Your task to perform on an android device: turn off airplane mode Image 0: 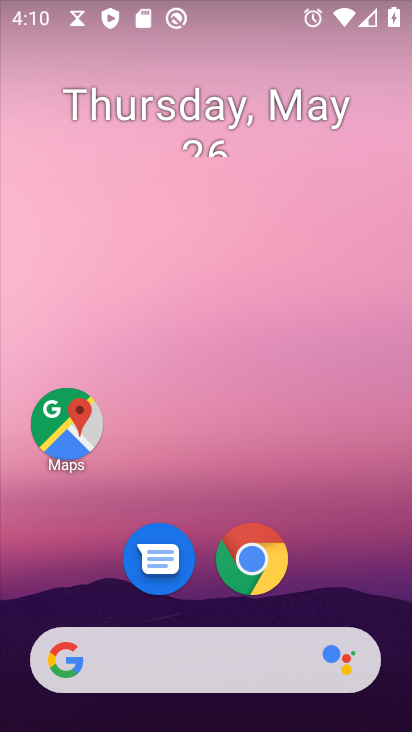
Step 0: drag from (274, 62) to (226, 0)
Your task to perform on an android device: turn off airplane mode Image 1: 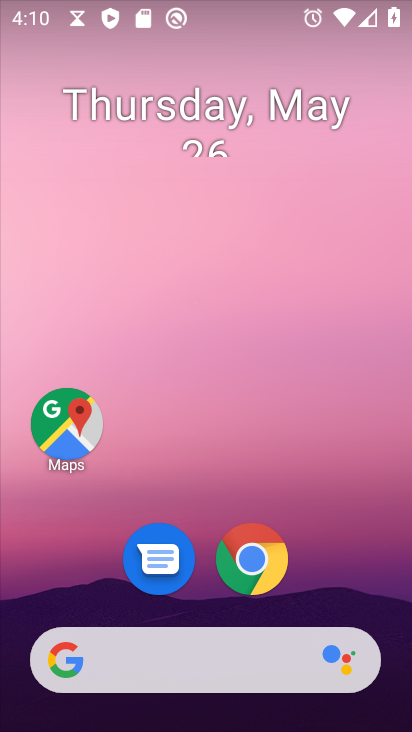
Step 1: drag from (361, 558) to (196, 0)
Your task to perform on an android device: turn off airplane mode Image 2: 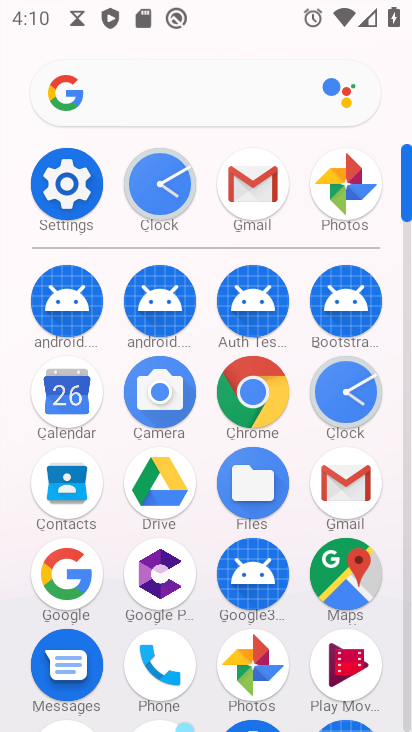
Step 2: click (69, 186)
Your task to perform on an android device: turn off airplane mode Image 3: 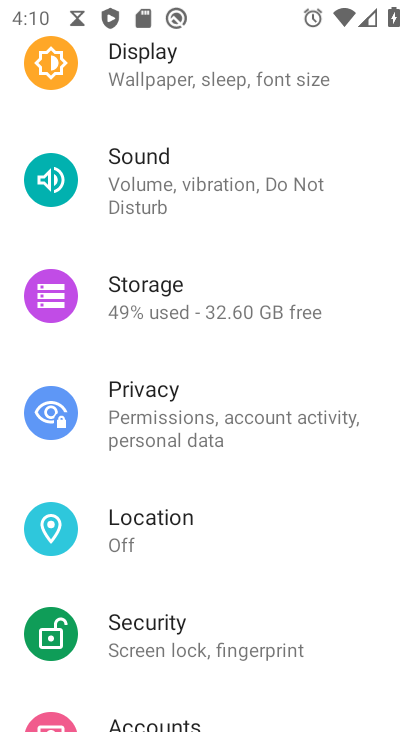
Step 3: drag from (293, 164) to (309, 619)
Your task to perform on an android device: turn off airplane mode Image 4: 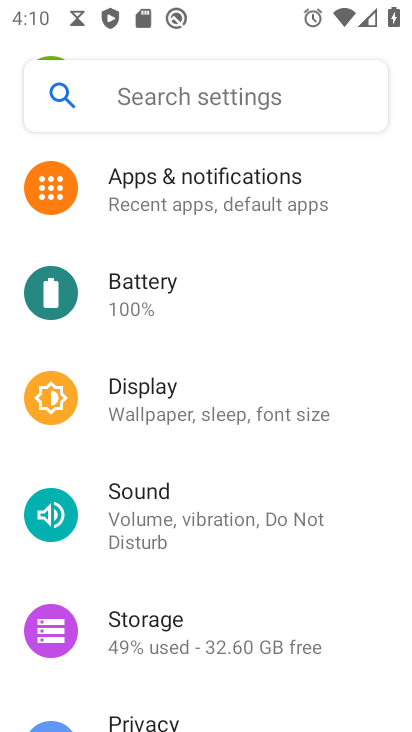
Step 4: drag from (219, 235) to (232, 605)
Your task to perform on an android device: turn off airplane mode Image 5: 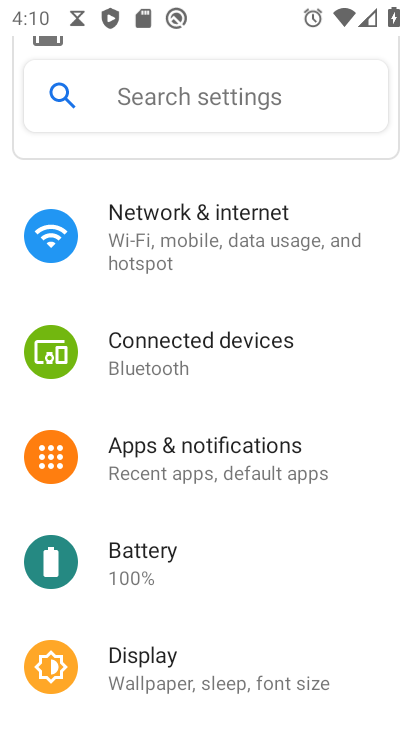
Step 5: click (189, 214)
Your task to perform on an android device: turn off airplane mode Image 6: 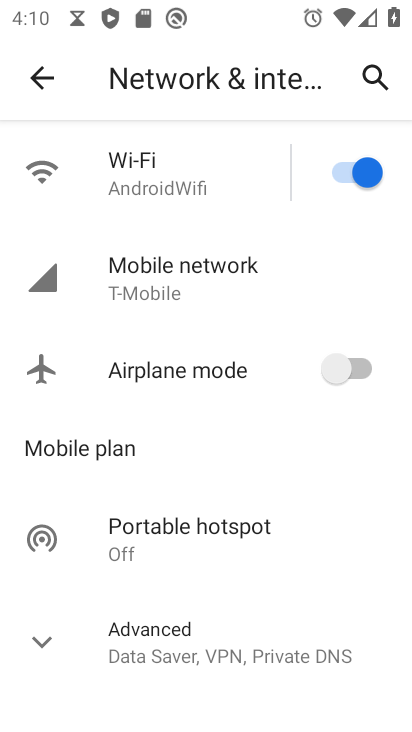
Step 6: task complete